Your task to perform on an android device: What's the weather? Image 0: 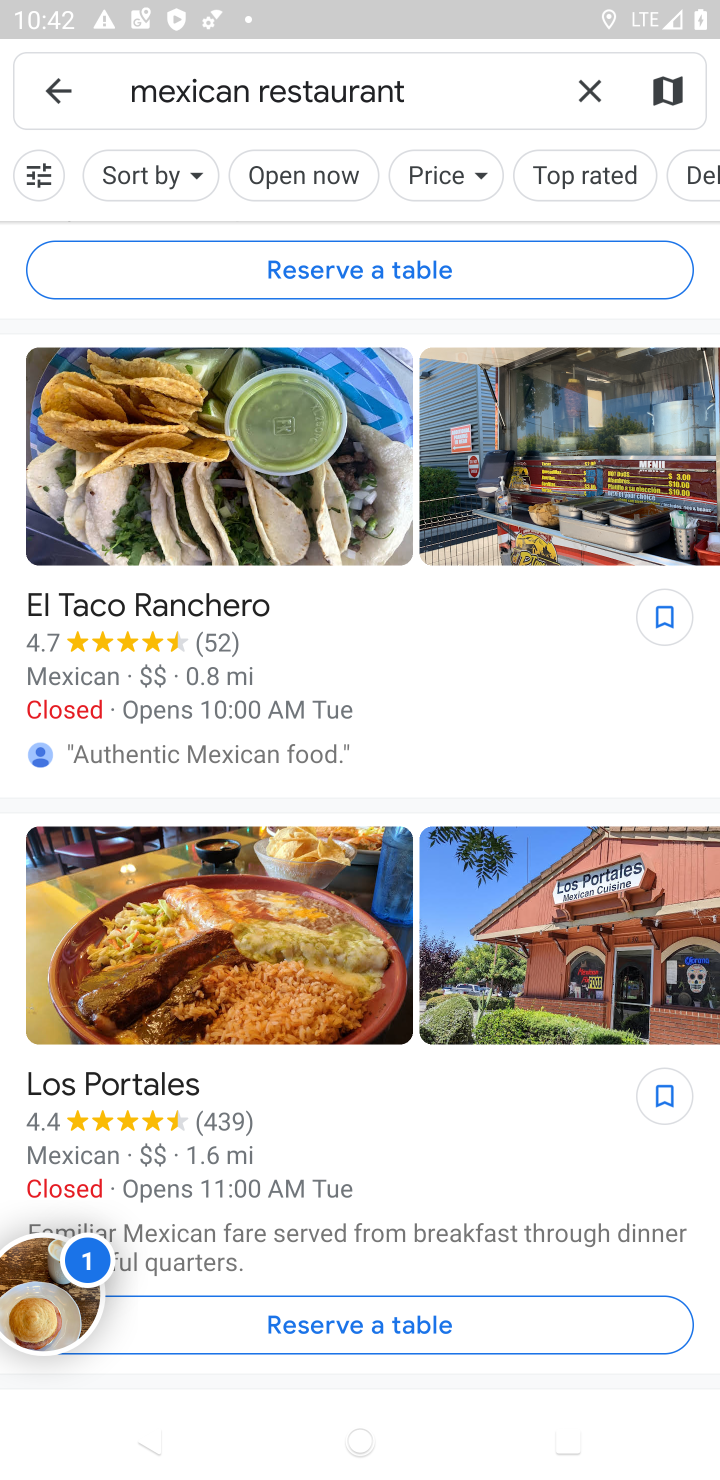
Step 0: press home button
Your task to perform on an android device: What's the weather? Image 1: 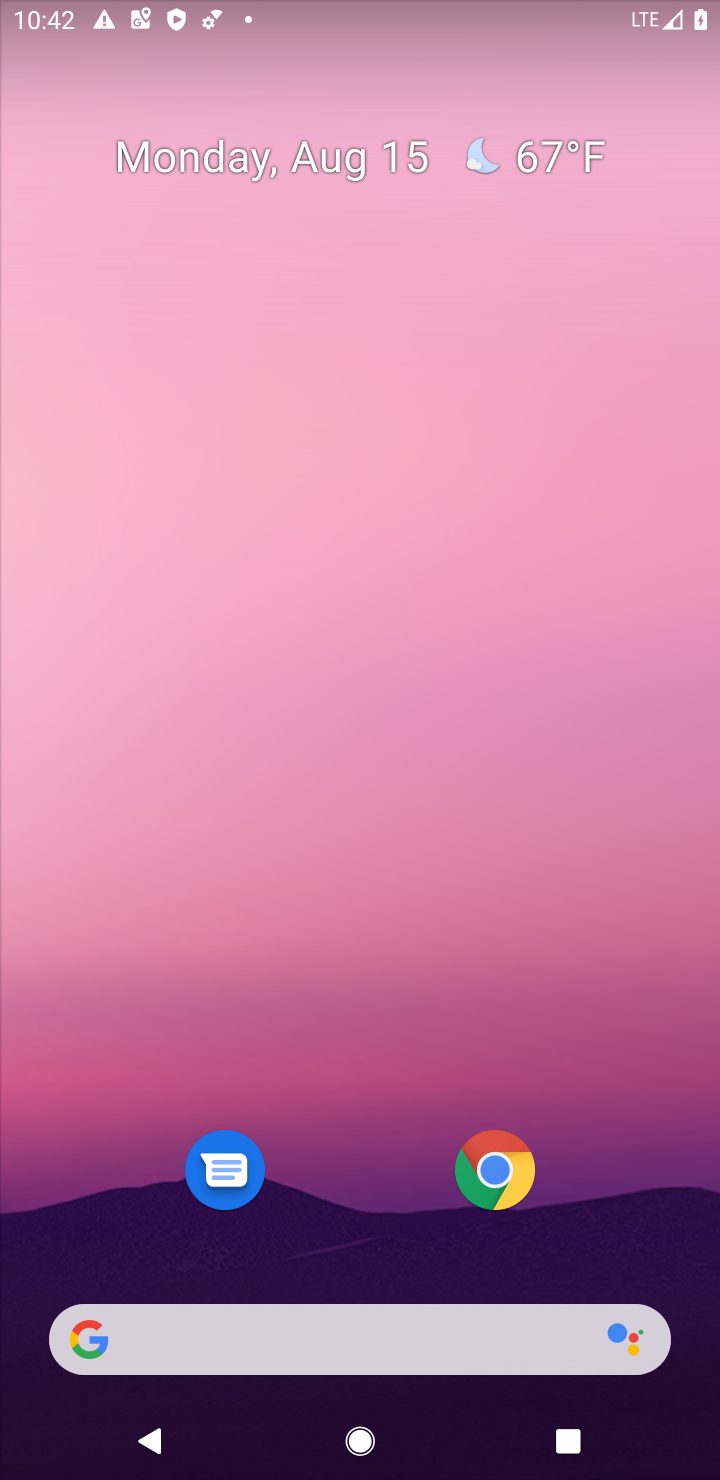
Step 1: click (546, 152)
Your task to perform on an android device: What's the weather? Image 2: 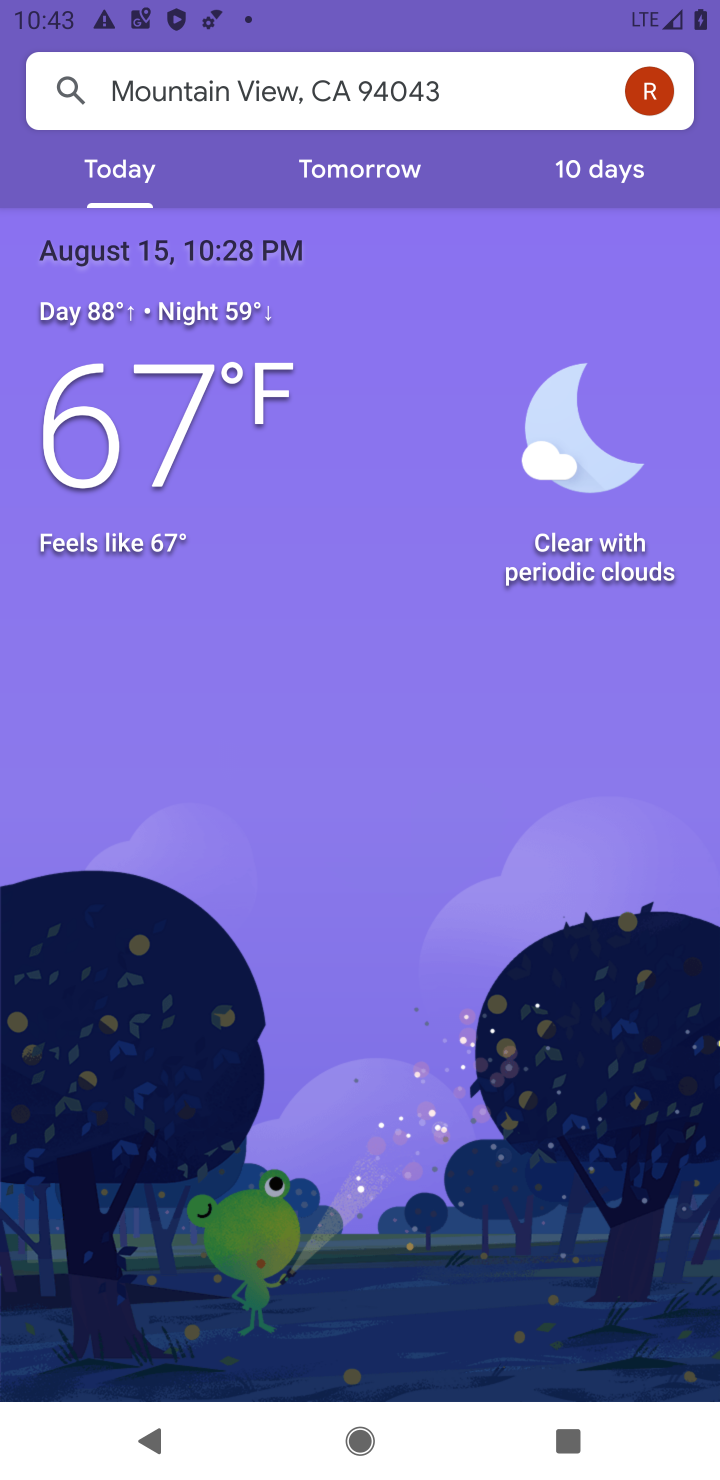
Step 2: drag from (315, 1304) to (308, 204)
Your task to perform on an android device: What's the weather? Image 3: 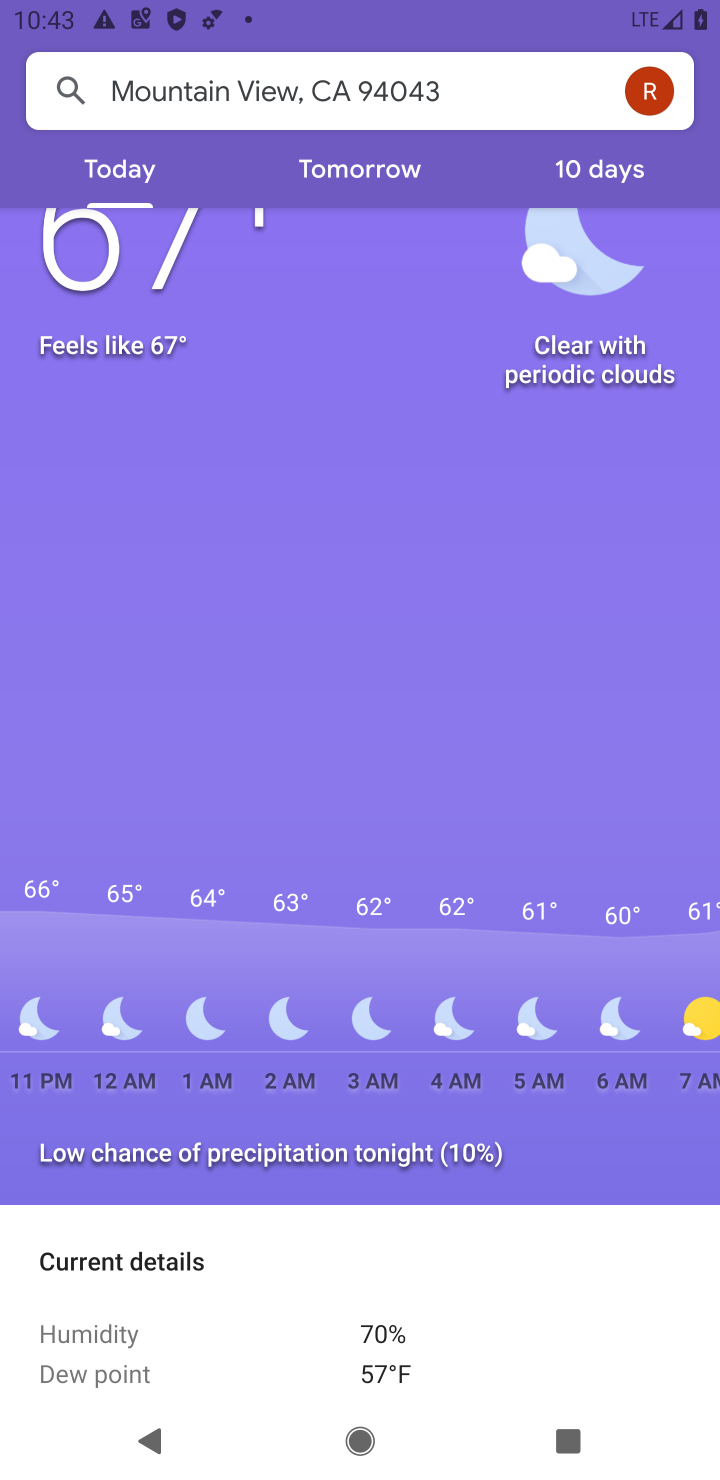
Step 3: drag from (696, 1025) to (4, 1037)
Your task to perform on an android device: What's the weather? Image 4: 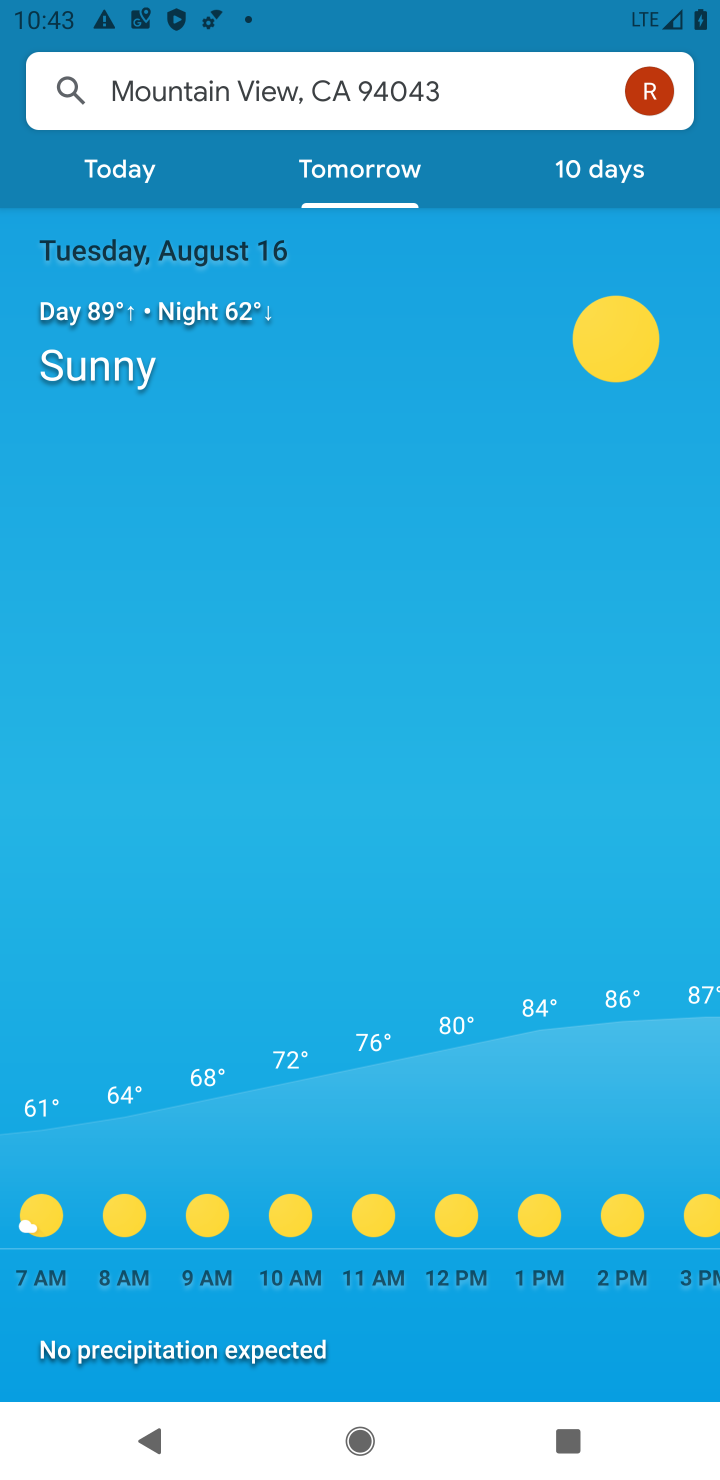
Step 4: click (126, 175)
Your task to perform on an android device: What's the weather? Image 5: 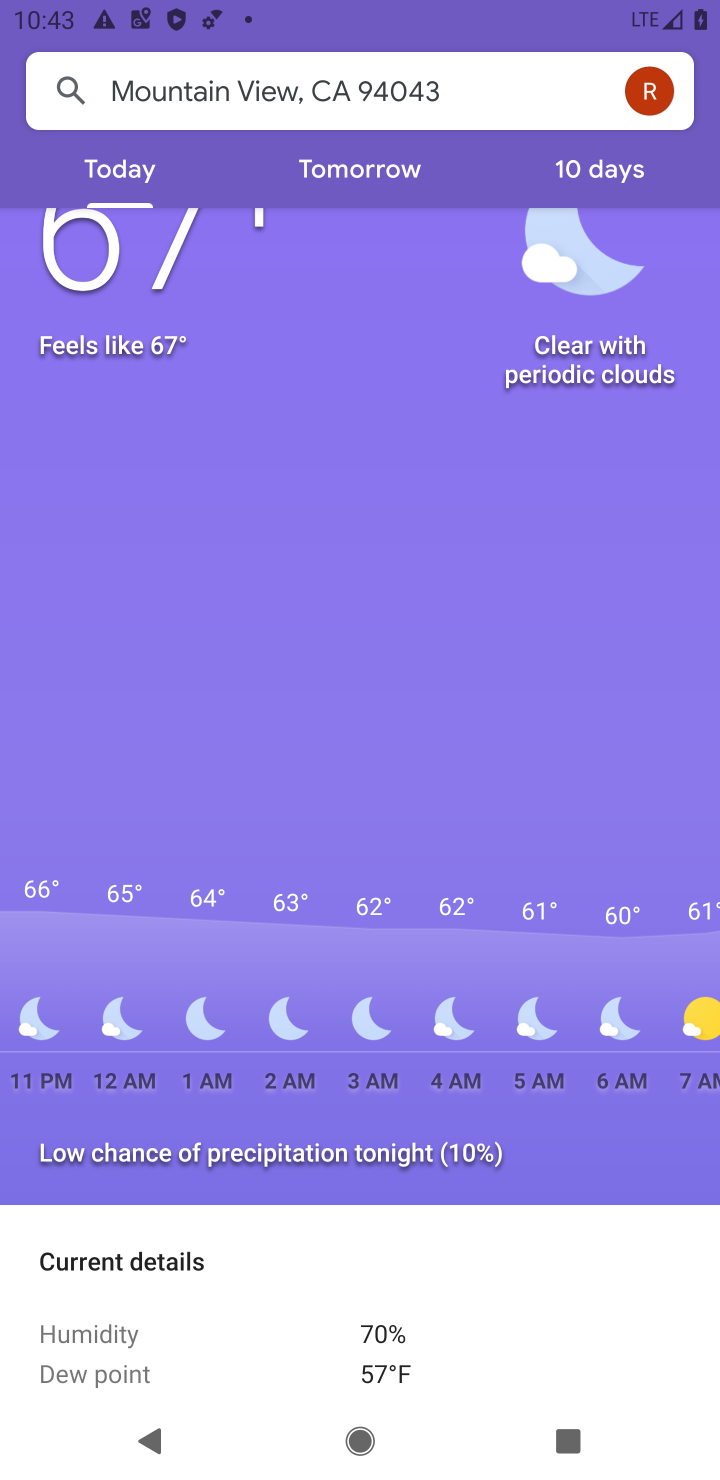
Step 5: task complete